Your task to perform on an android device: What's on my calendar tomorrow? Image 0: 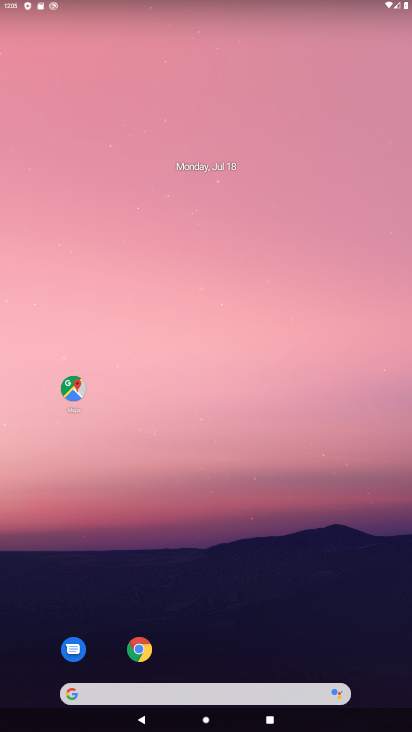
Step 0: press home button
Your task to perform on an android device: What's on my calendar tomorrow? Image 1: 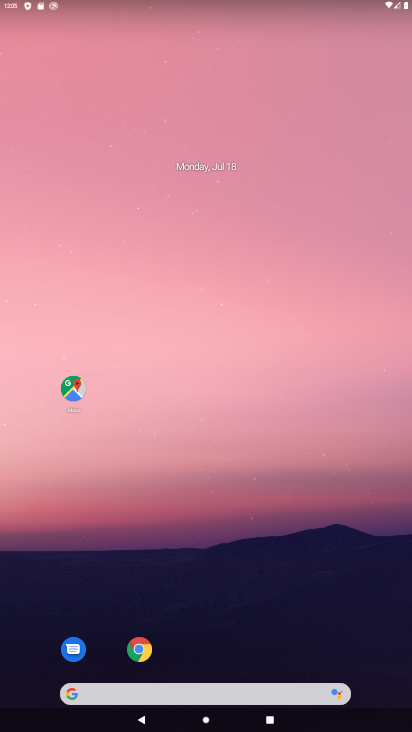
Step 1: drag from (165, 632) to (163, 215)
Your task to perform on an android device: What's on my calendar tomorrow? Image 2: 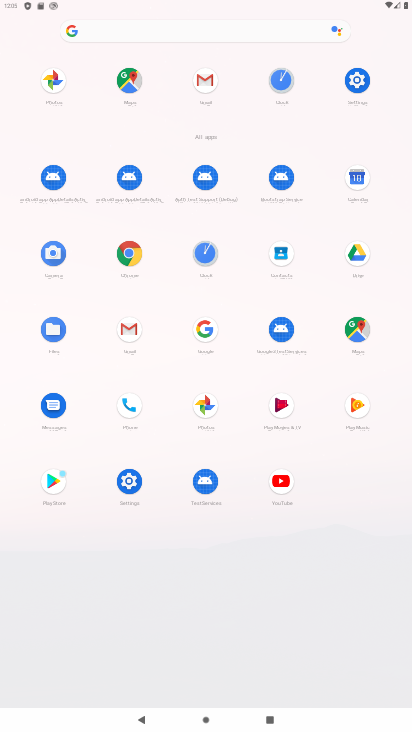
Step 2: click (363, 183)
Your task to perform on an android device: What's on my calendar tomorrow? Image 3: 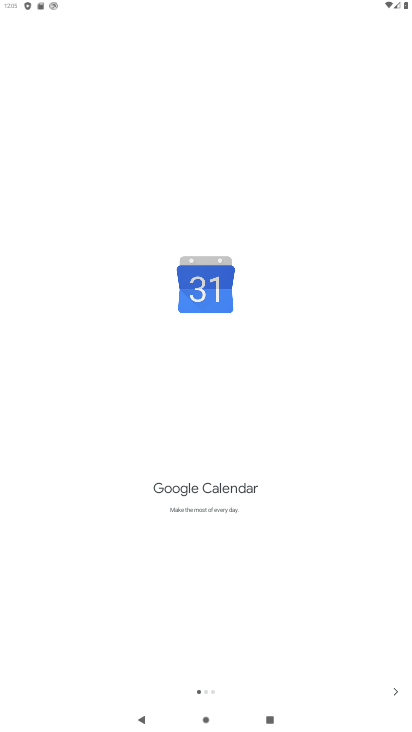
Step 3: click (395, 691)
Your task to perform on an android device: What's on my calendar tomorrow? Image 4: 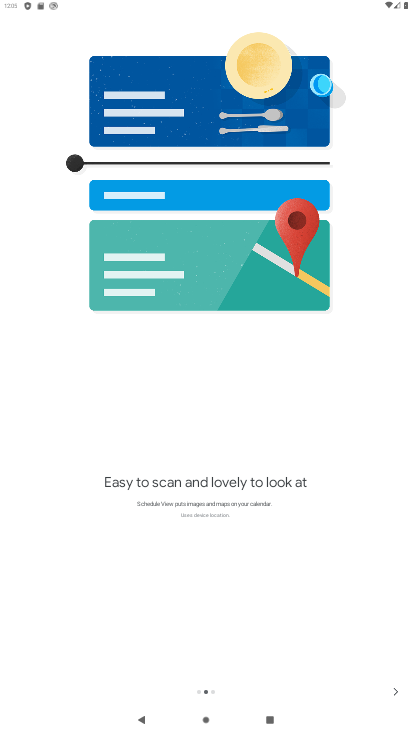
Step 4: click (395, 691)
Your task to perform on an android device: What's on my calendar tomorrow? Image 5: 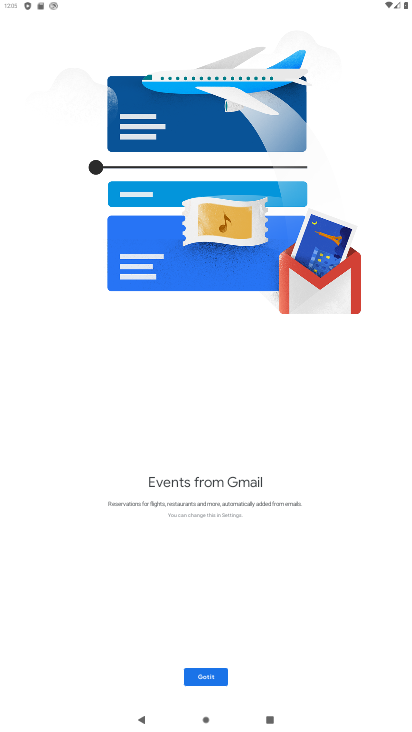
Step 5: click (199, 680)
Your task to perform on an android device: What's on my calendar tomorrow? Image 6: 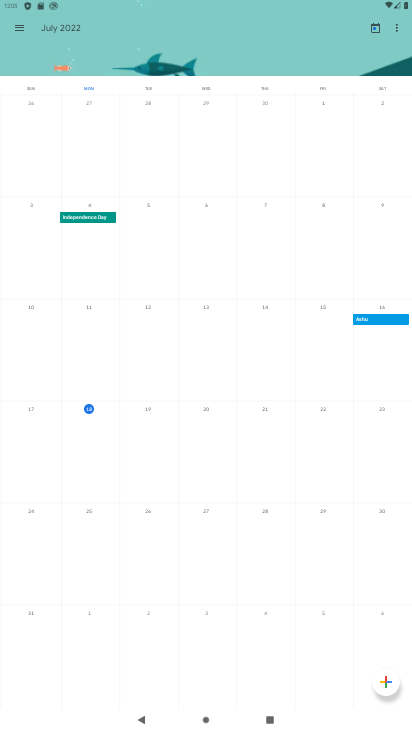
Step 6: click (143, 411)
Your task to perform on an android device: What's on my calendar tomorrow? Image 7: 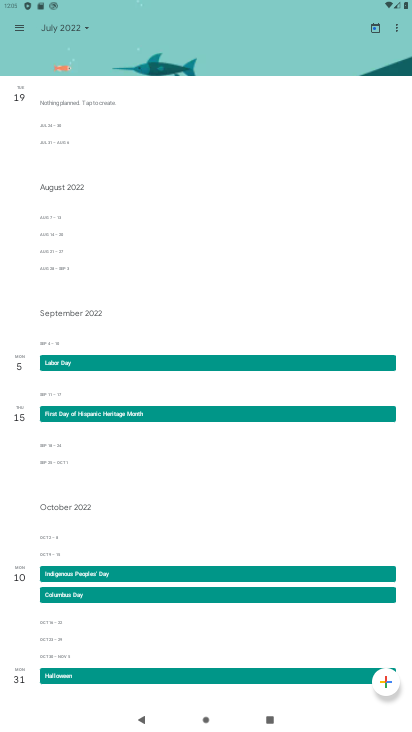
Step 7: task complete